Your task to perform on an android device: turn pop-ups on in chrome Image 0: 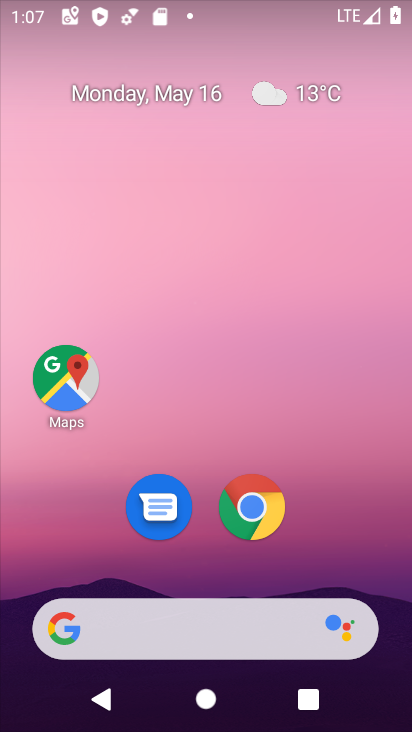
Step 0: click (262, 508)
Your task to perform on an android device: turn pop-ups on in chrome Image 1: 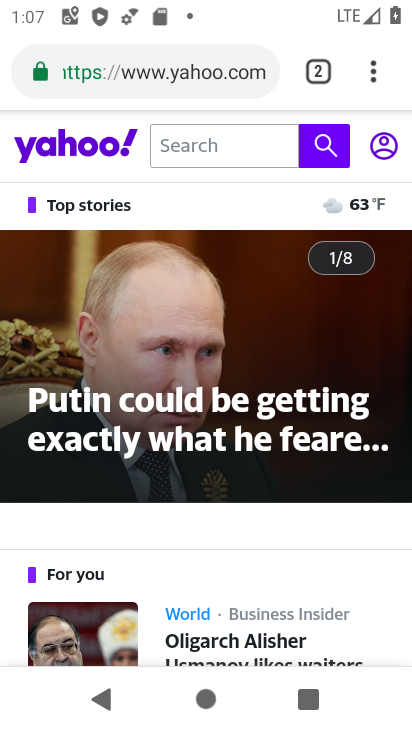
Step 1: click (370, 72)
Your task to perform on an android device: turn pop-ups on in chrome Image 2: 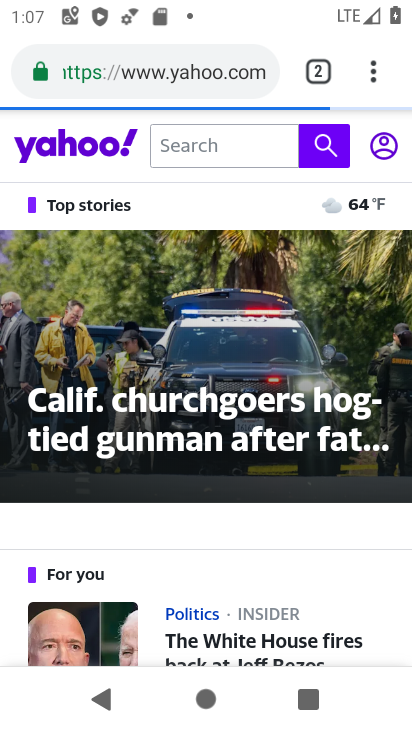
Step 2: click (374, 66)
Your task to perform on an android device: turn pop-ups on in chrome Image 3: 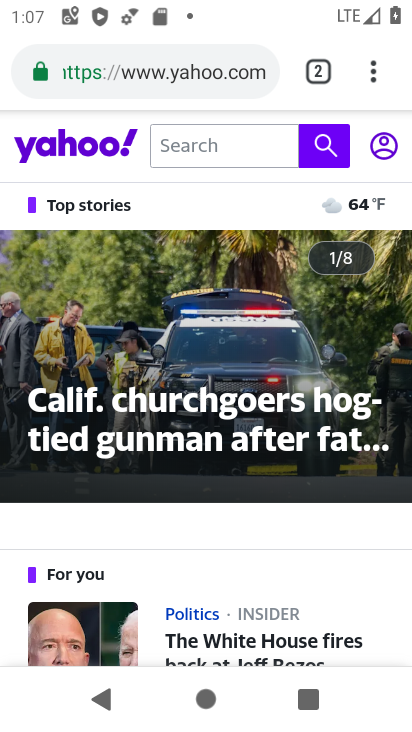
Step 3: click (374, 66)
Your task to perform on an android device: turn pop-ups on in chrome Image 4: 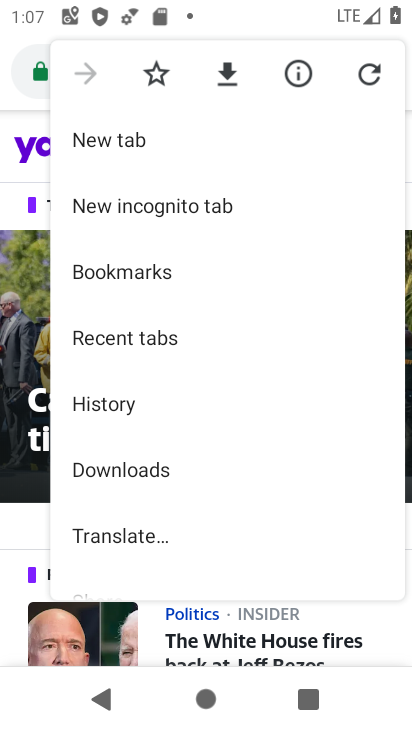
Step 4: drag from (196, 491) to (205, 164)
Your task to perform on an android device: turn pop-ups on in chrome Image 5: 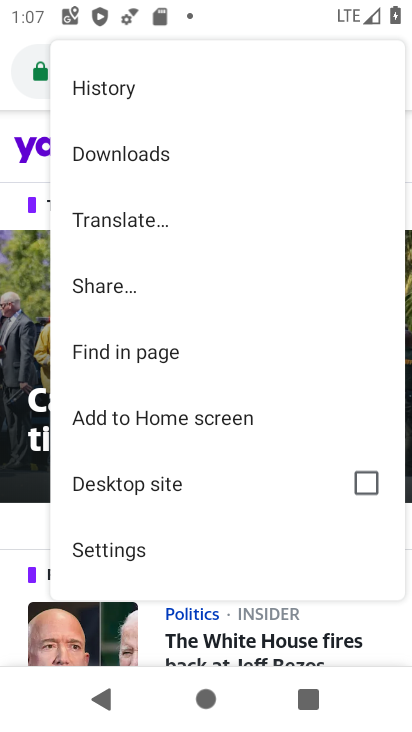
Step 5: click (164, 546)
Your task to perform on an android device: turn pop-ups on in chrome Image 6: 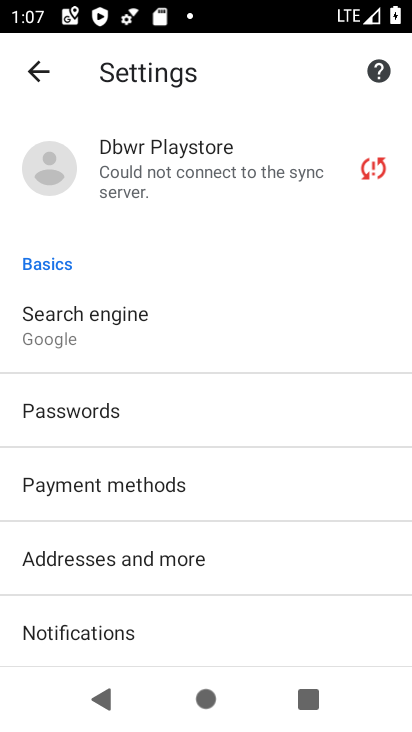
Step 6: drag from (230, 582) to (253, 255)
Your task to perform on an android device: turn pop-ups on in chrome Image 7: 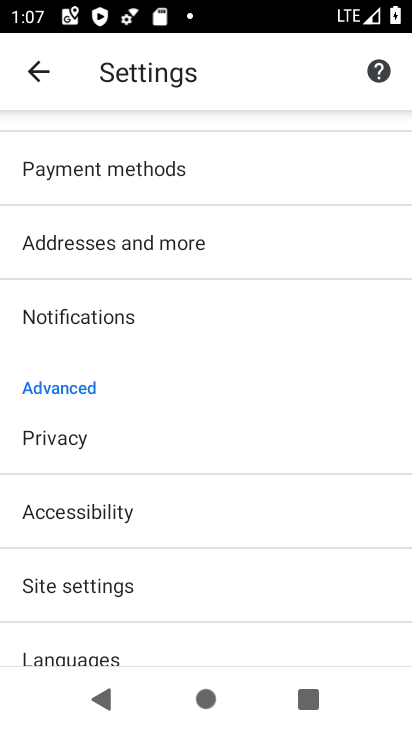
Step 7: click (137, 584)
Your task to perform on an android device: turn pop-ups on in chrome Image 8: 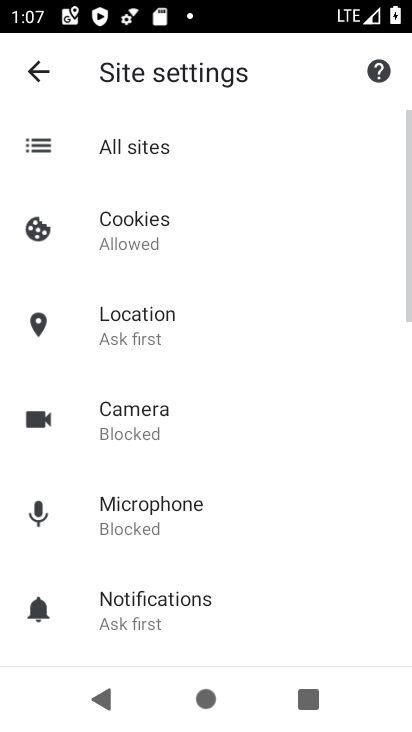
Step 8: drag from (215, 508) to (219, 185)
Your task to perform on an android device: turn pop-ups on in chrome Image 9: 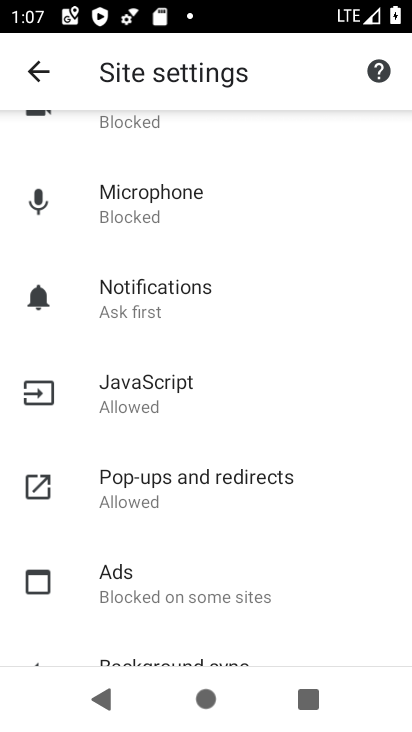
Step 9: click (226, 481)
Your task to perform on an android device: turn pop-ups on in chrome Image 10: 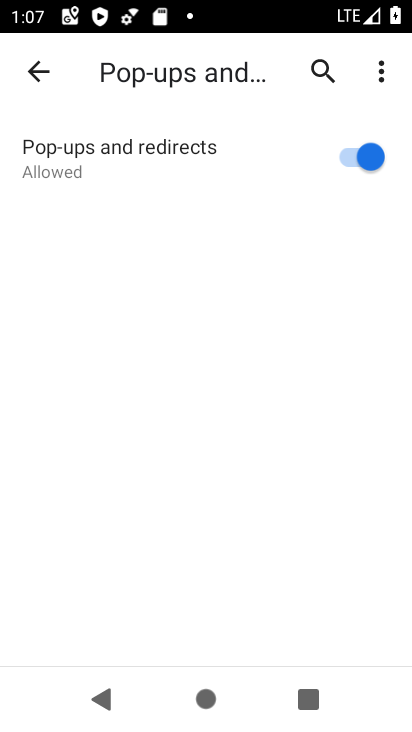
Step 10: task complete